Your task to perform on an android device: Go to notification settings Image 0: 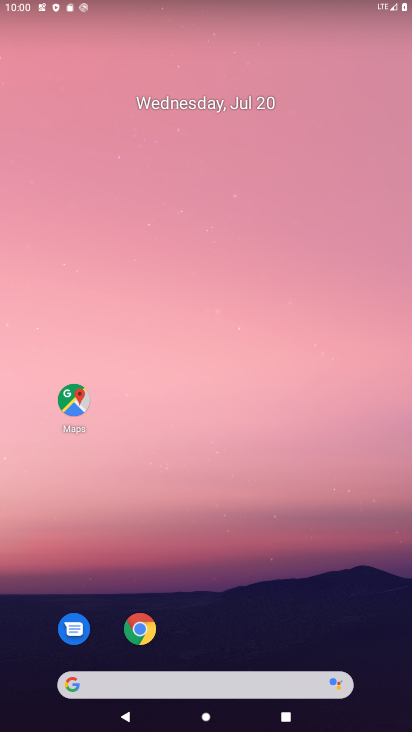
Step 0: press home button
Your task to perform on an android device: Go to notification settings Image 1: 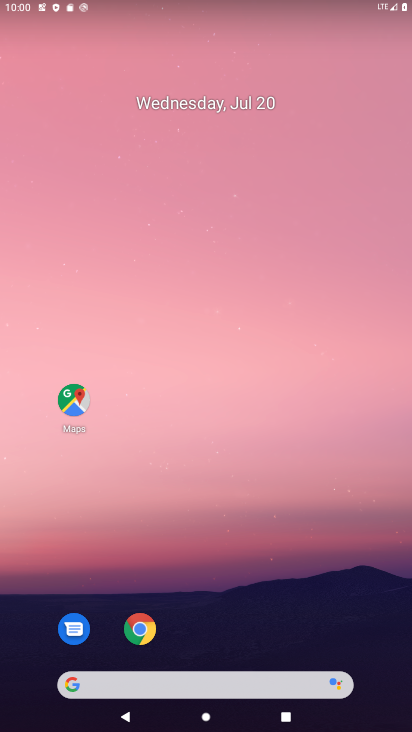
Step 1: drag from (308, 653) to (312, 12)
Your task to perform on an android device: Go to notification settings Image 2: 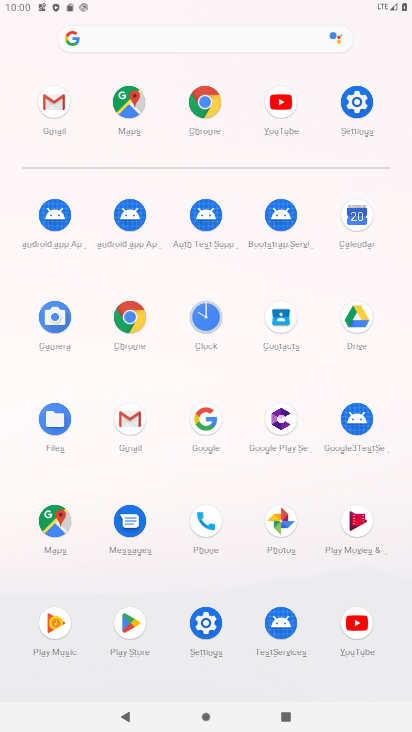
Step 2: click (207, 620)
Your task to perform on an android device: Go to notification settings Image 3: 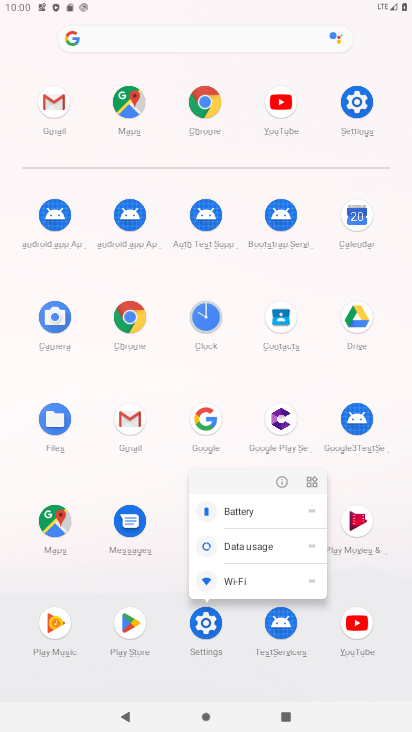
Step 3: click (216, 646)
Your task to perform on an android device: Go to notification settings Image 4: 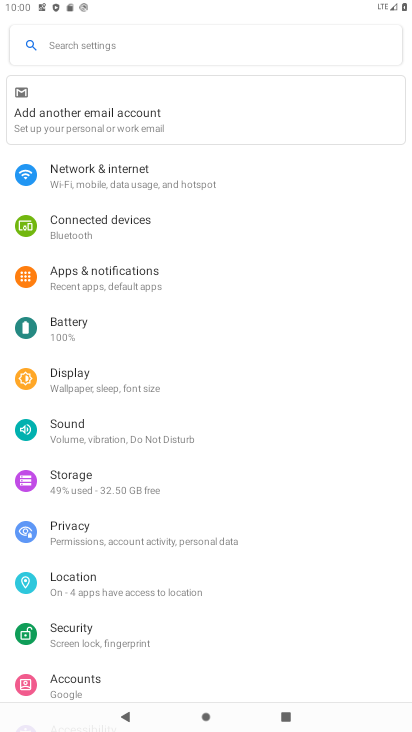
Step 4: click (94, 289)
Your task to perform on an android device: Go to notification settings Image 5: 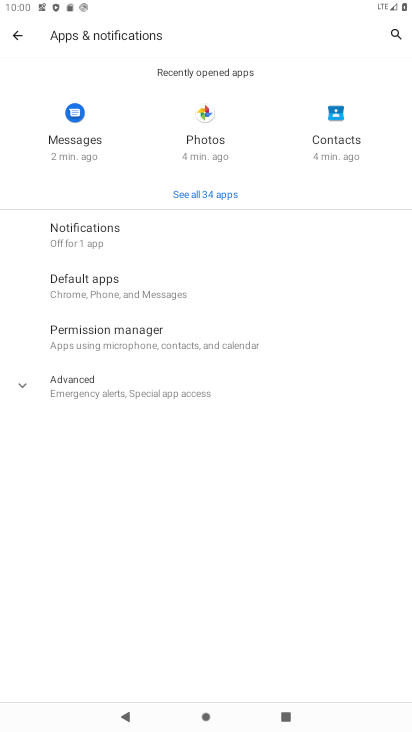
Step 5: click (86, 233)
Your task to perform on an android device: Go to notification settings Image 6: 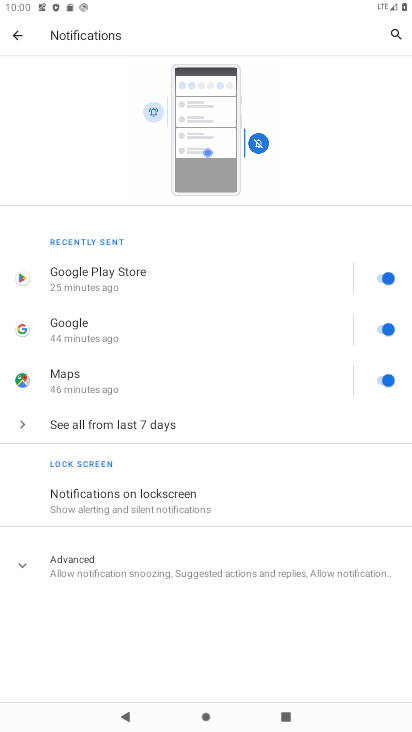
Step 6: task complete